Your task to perform on an android device: check data usage Image 0: 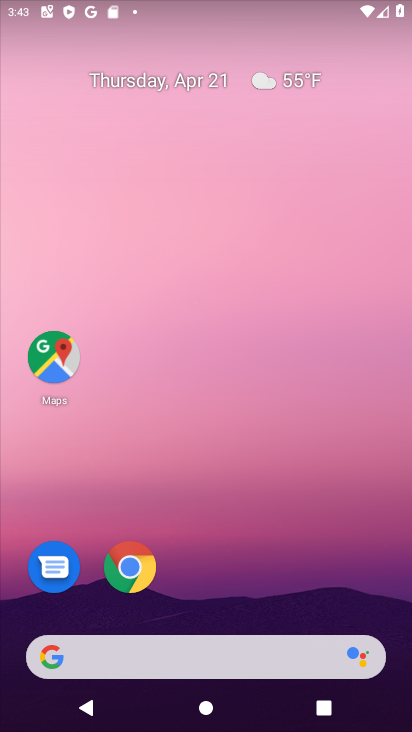
Step 0: drag from (174, 607) to (218, 109)
Your task to perform on an android device: check data usage Image 1: 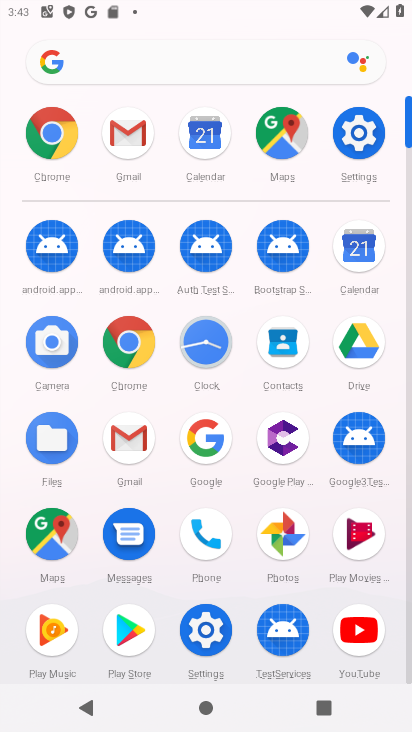
Step 1: click (351, 128)
Your task to perform on an android device: check data usage Image 2: 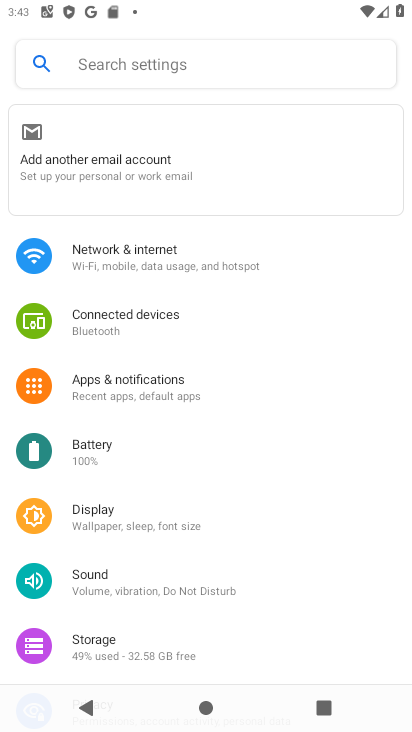
Step 2: click (130, 264)
Your task to perform on an android device: check data usage Image 3: 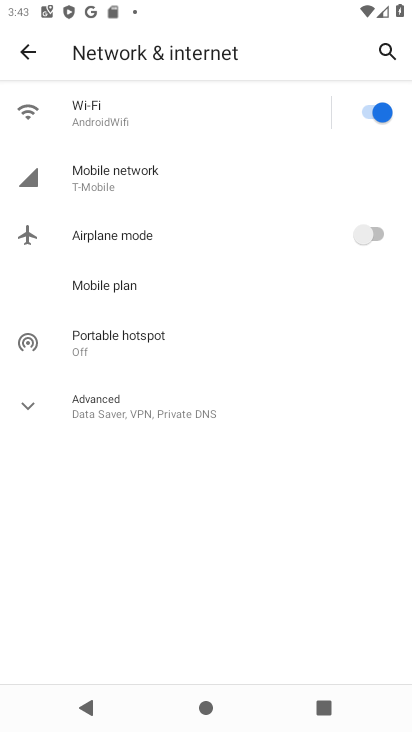
Step 3: click (144, 182)
Your task to perform on an android device: check data usage Image 4: 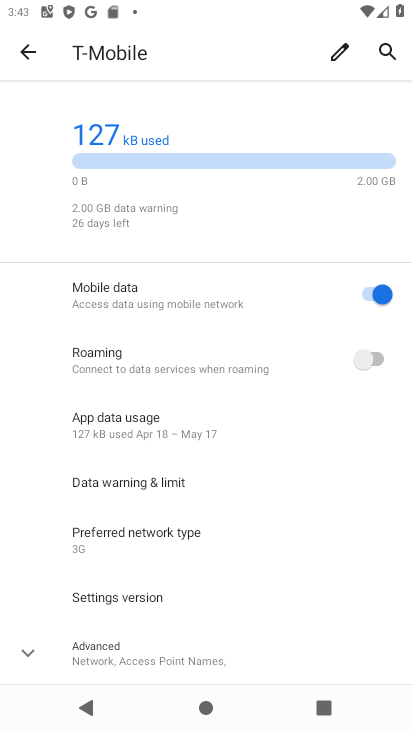
Step 4: click (185, 430)
Your task to perform on an android device: check data usage Image 5: 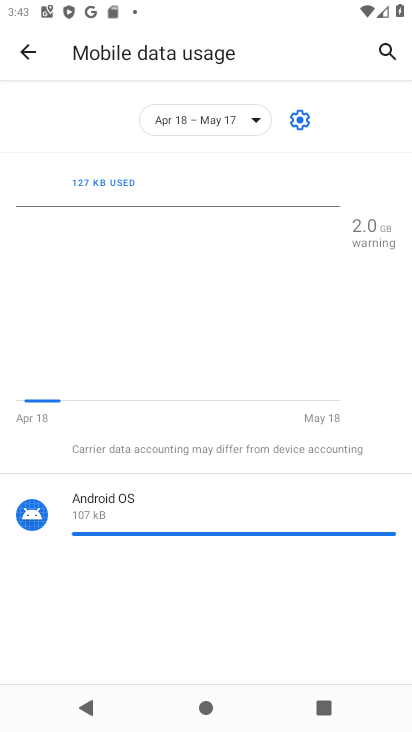
Step 5: task complete